Your task to perform on an android device: What is the news today? Image 0: 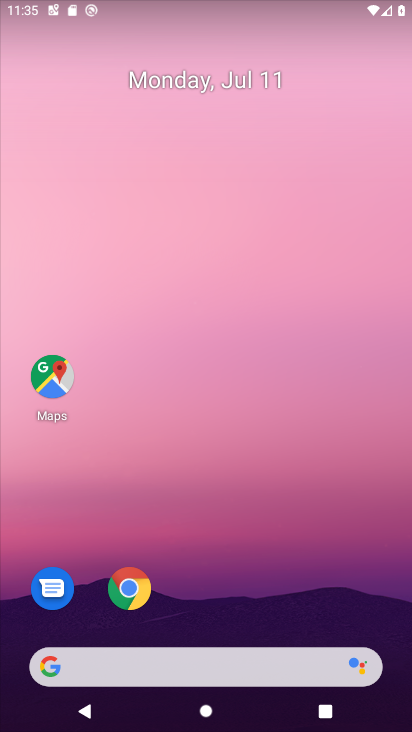
Step 0: drag from (239, 595) to (152, 21)
Your task to perform on an android device: What is the news today? Image 1: 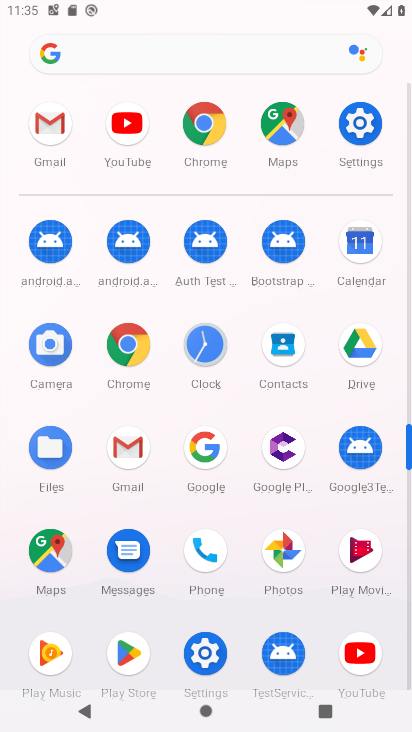
Step 1: click (200, 124)
Your task to perform on an android device: What is the news today? Image 2: 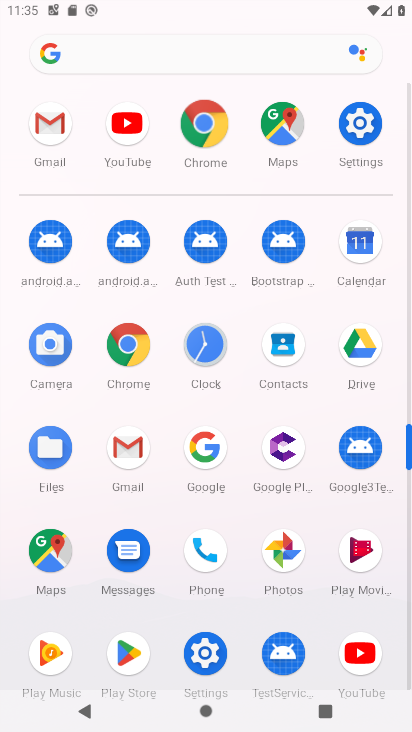
Step 2: click (201, 123)
Your task to perform on an android device: What is the news today? Image 3: 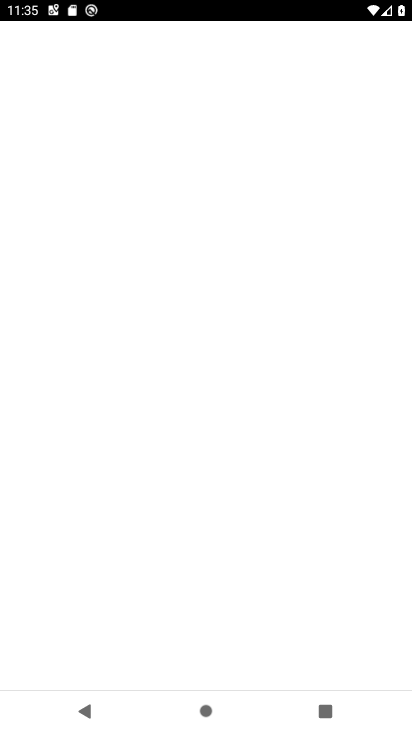
Step 3: click (206, 122)
Your task to perform on an android device: What is the news today? Image 4: 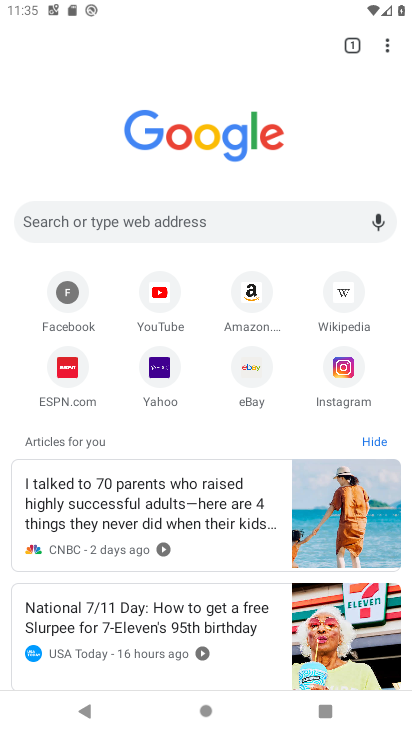
Step 4: task complete